Your task to perform on an android device: turn on notifications settings in the gmail app Image 0: 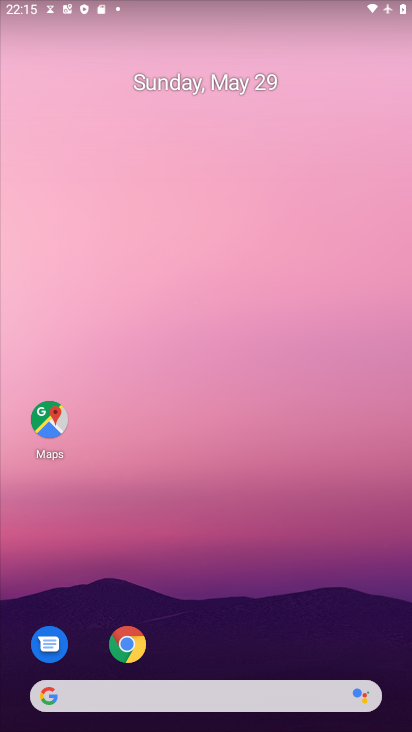
Step 0: drag from (246, 593) to (212, 252)
Your task to perform on an android device: turn on notifications settings in the gmail app Image 1: 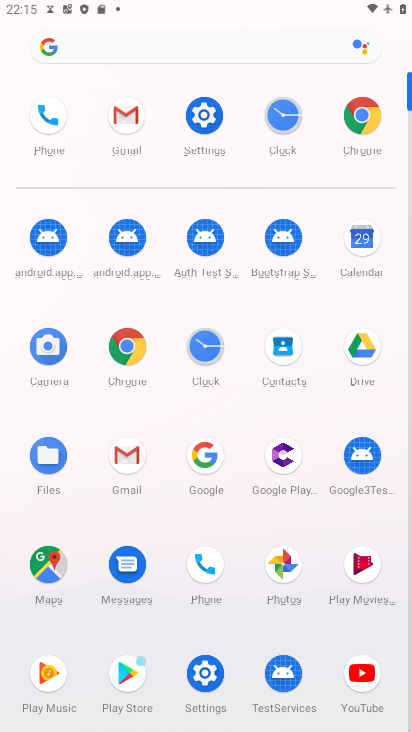
Step 1: click (200, 112)
Your task to perform on an android device: turn on notifications settings in the gmail app Image 2: 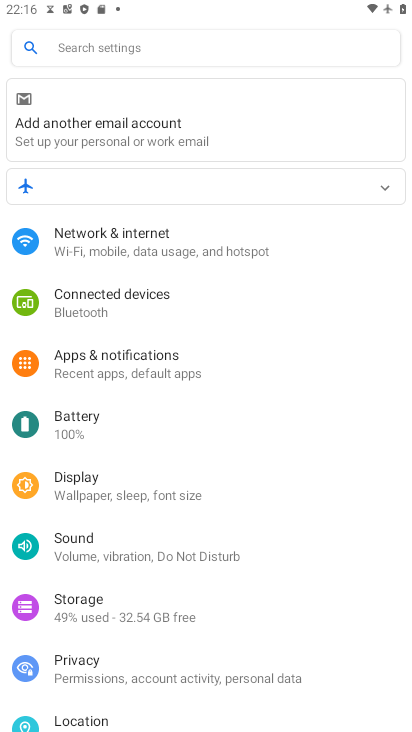
Step 2: press home button
Your task to perform on an android device: turn on notifications settings in the gmail app Image 3: 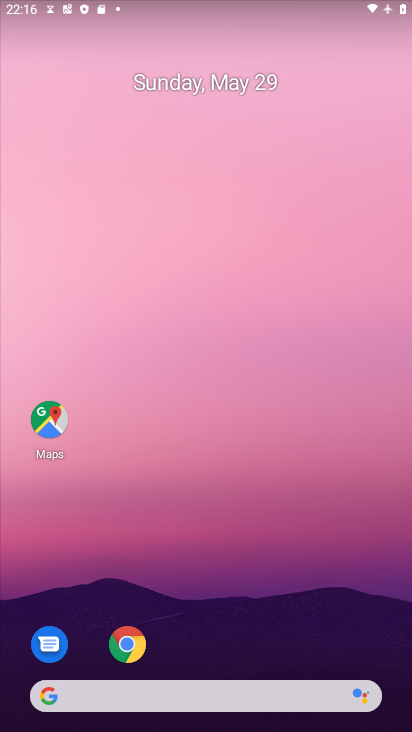
Step 3: drag from (238, 432) to (258, 287)
Your task to perform on an android device: turn on notifications settings in the gmail app Image 4: 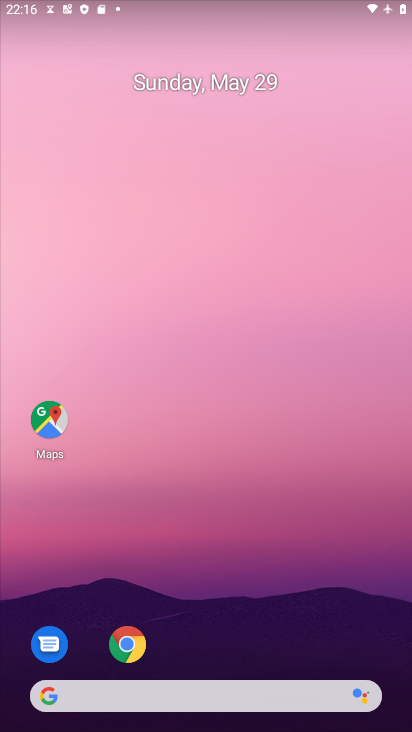
Step 4: drag from (206, 627) to (188, 127)
Your task to perform on an android device: turn on notifications settings in the gmail app Image 5: 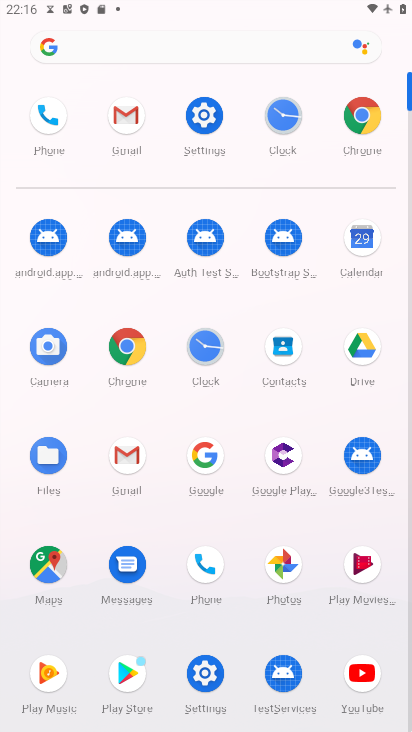
Step 5: click (124, 113)
Your task to perform on an android device: turn on notifications settings in the gmail app Image 6: 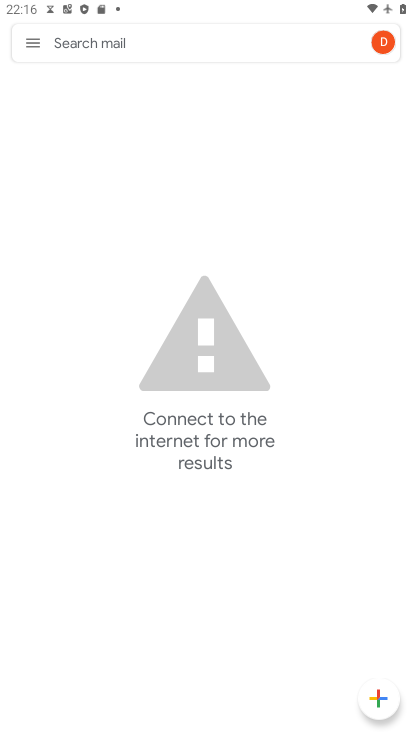
Step 6: click (36, 43)
Your task to perform on an android device: turn on notifications settings in the gmail app Image 7: 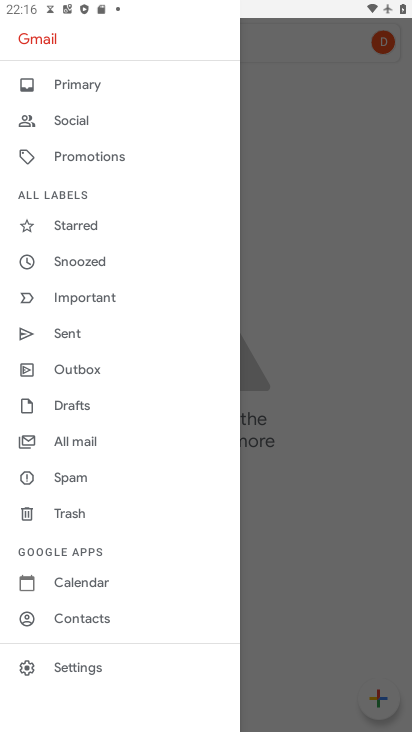
Step 7: drag from (74, 537) to (105, 279)
Your task to perform on an android device: turn on notifications settings in the gmail app Image 8: 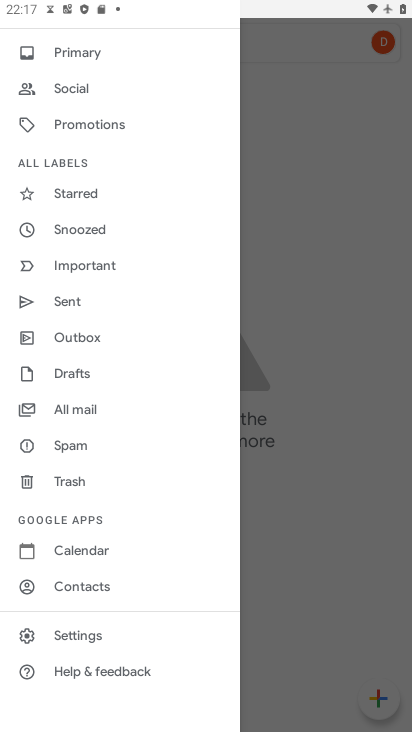
Step 8: click (90, 633)
Your task to perform on an android device: turn on notifications settings in the gmail app Image 9: 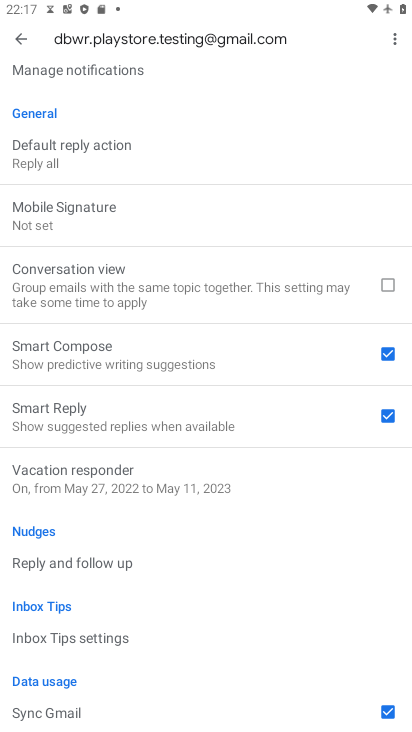
Step 9: drag from (142, 601) to (205, 337)
Your task to perform on an android device: turn on notifications settings in the gmail app Image 10: 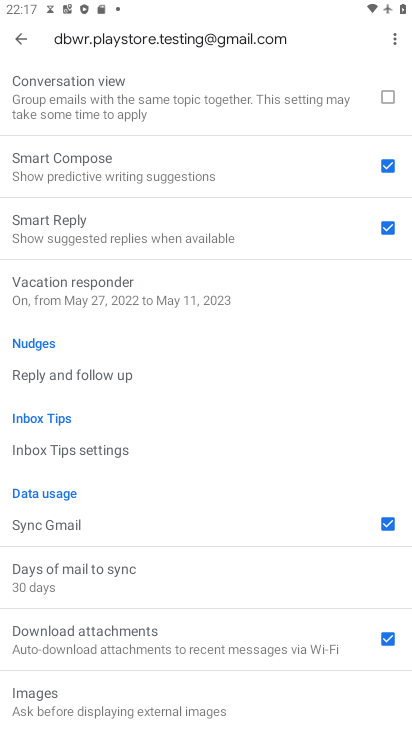
Step 10: drag from (163, 608) to (221, 192)
Your task to perform on an android device: turn on notifications settings in the gmail app Image 11: 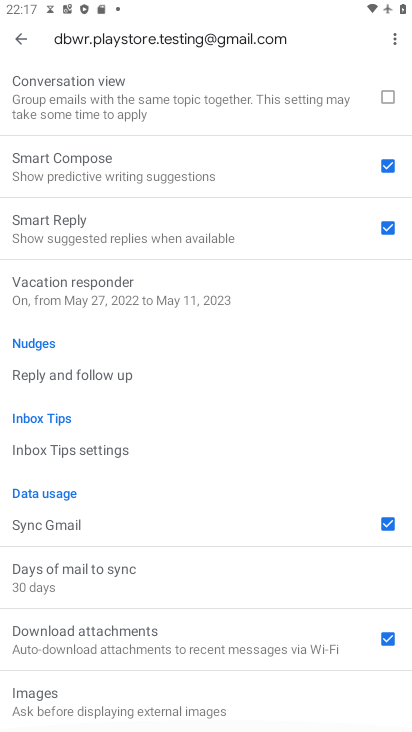
Step 11: drag from (218, 242) to (213, 608)
Your task to perform on an android device: turn on notifications settings in the gmail app Image 12: 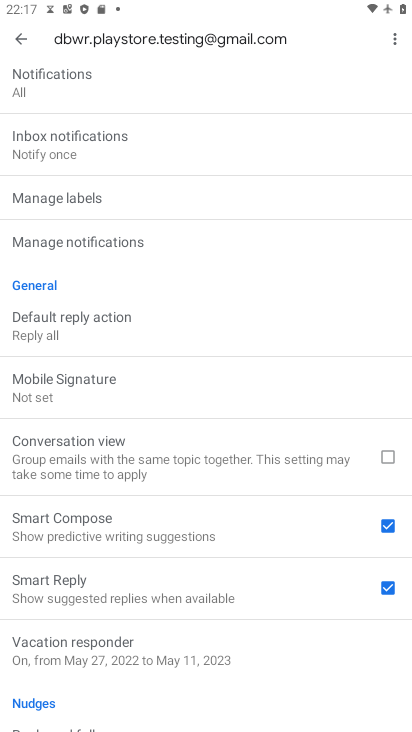
Step 12: drag from (209, 162) to (181, 559)
Your task to perform on an android device: turn on notifications settings in the gmail app Image 13: 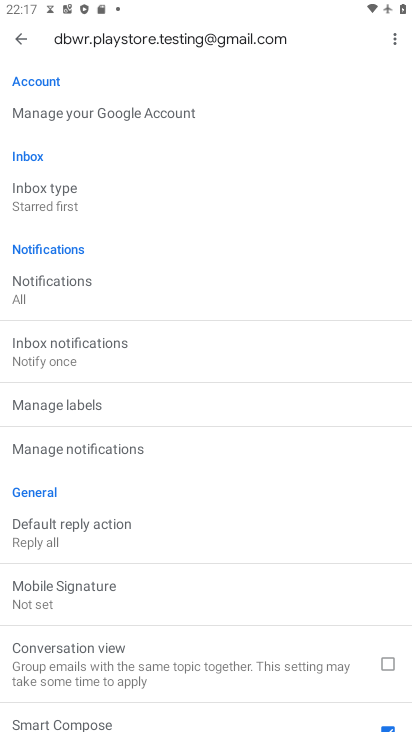
Step 13: click (85, 287)
Your task to perform on an android device: turn on notifications settings in the gmail app Image 14: 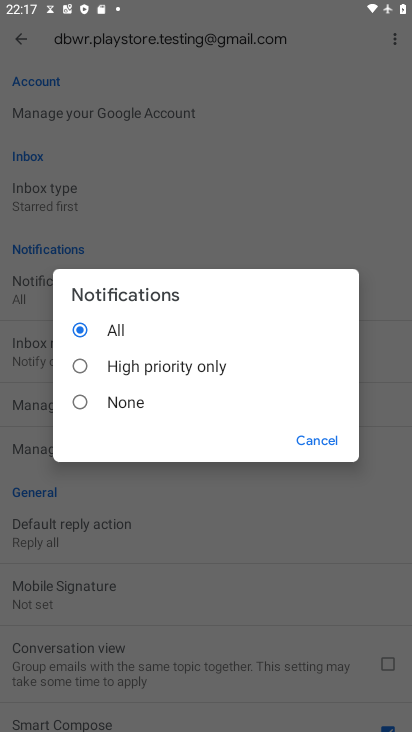
Step 14: task complete